Your task to perform on an android device: Open location settings Image 0: 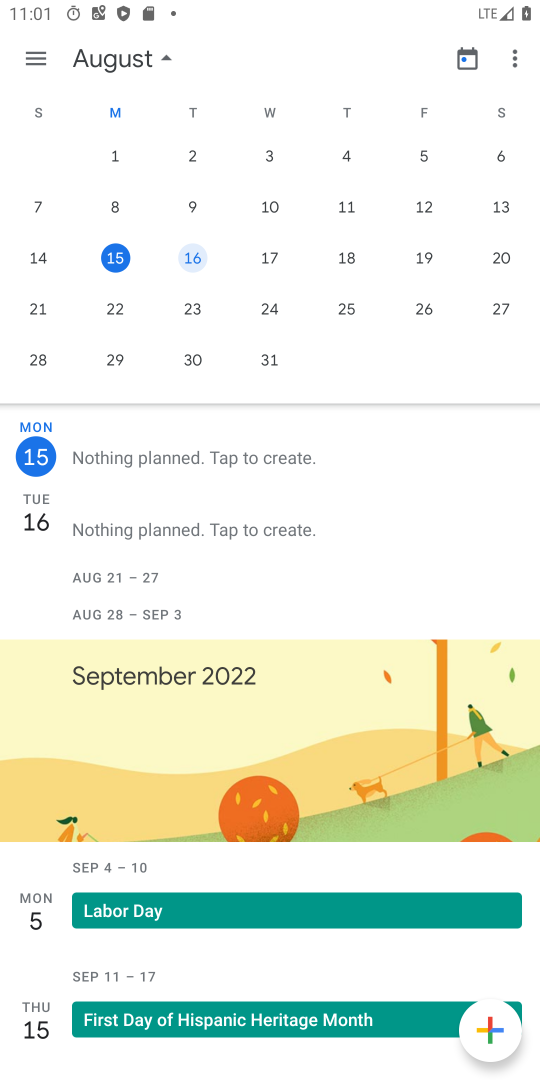
Step 0: press home button
Your task to perform on an android device: Open location settings Image 1: 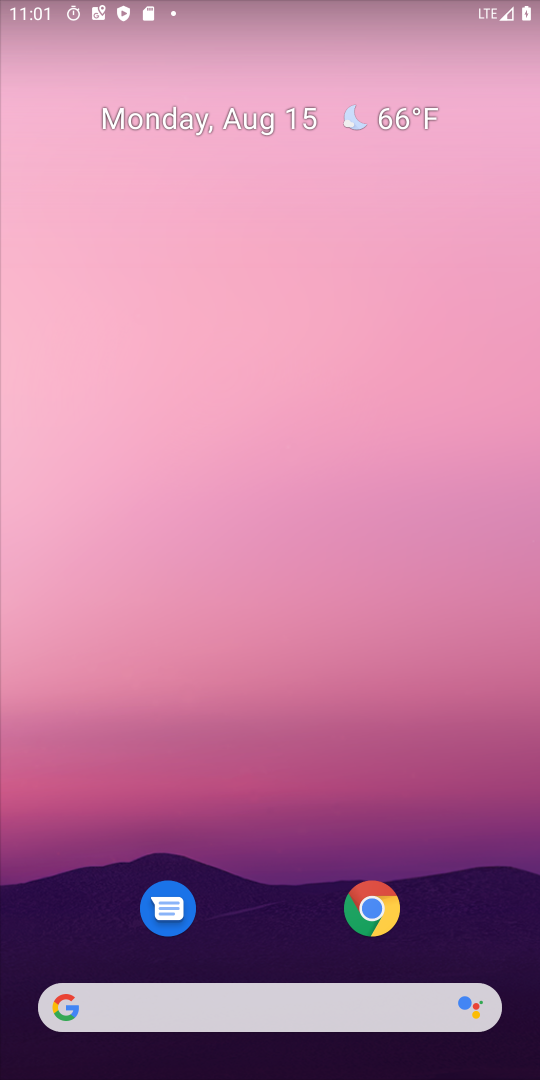
Step 1: drag from (266, 961) to (174, 227)
Your task to perform on an android device: Open location settings Image 2: 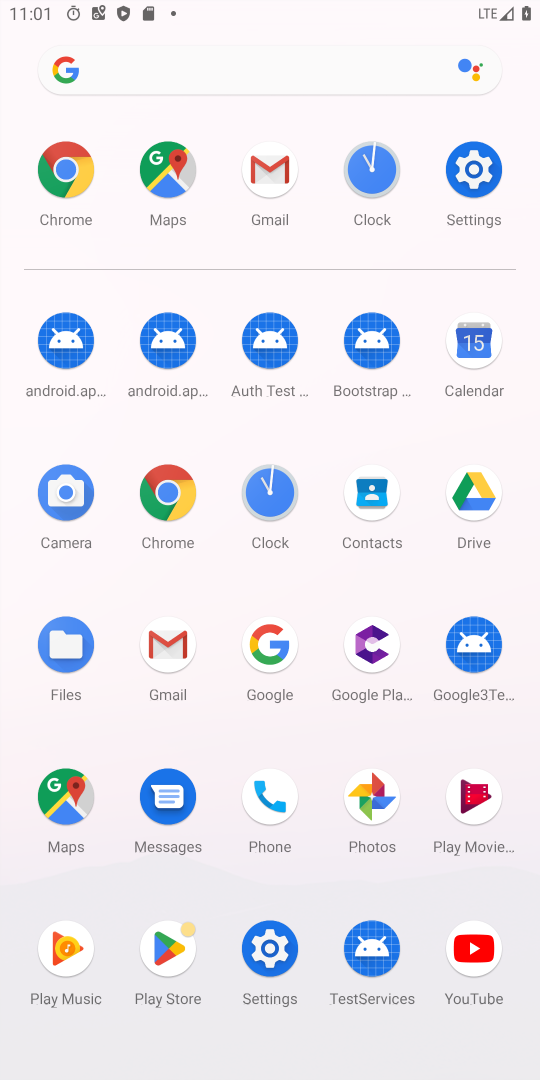
Step 2: click (506, 194)
Your task to perform on an android device: Open location settings Image 3: 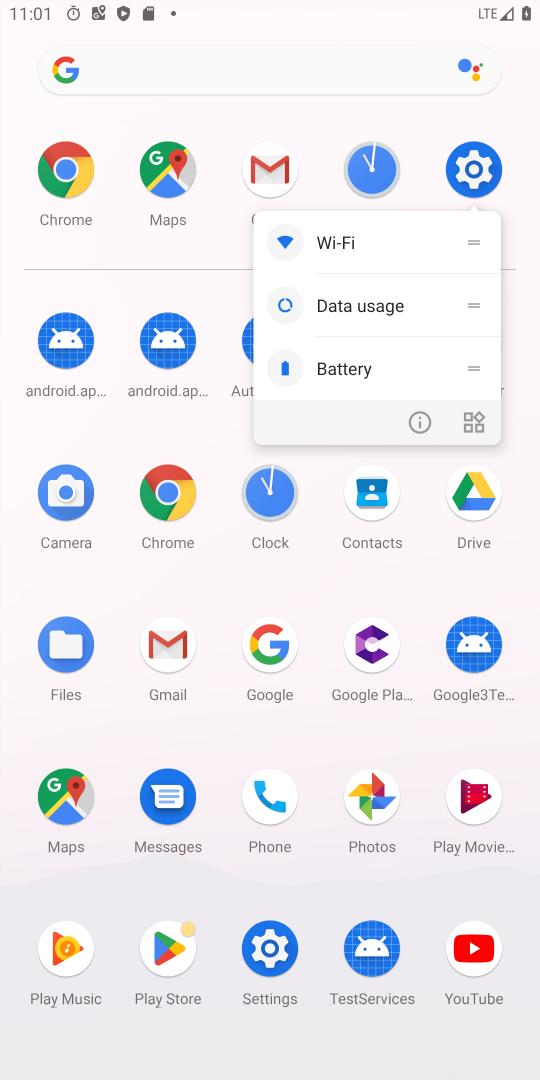
Step 3: click (506, 194)
Your task to perform on an android device: Open location settings Image 4: 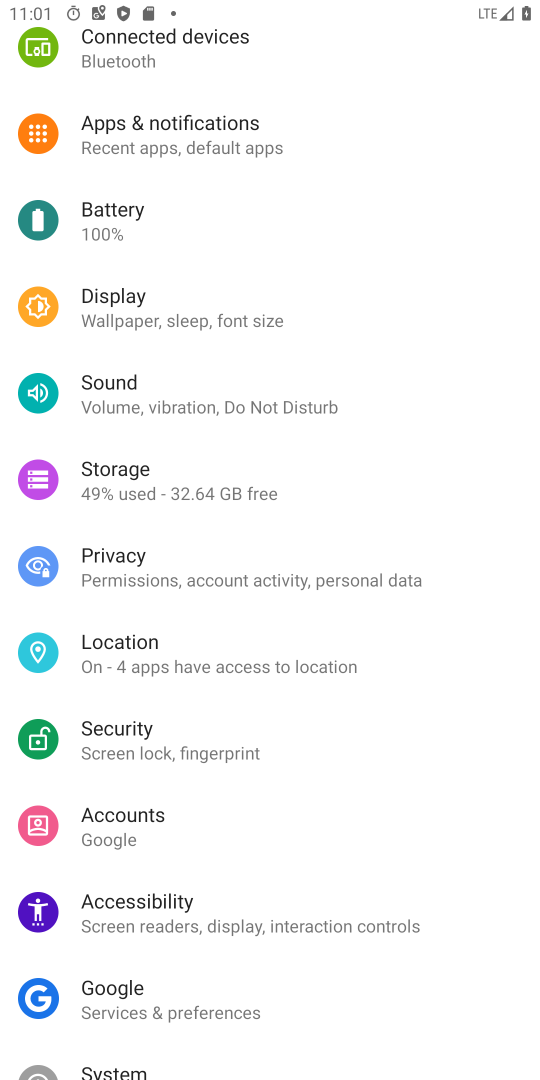
Step 4: task complete